Your task to perform on an android device: toggle notifications settings in the gmail app Image 0: 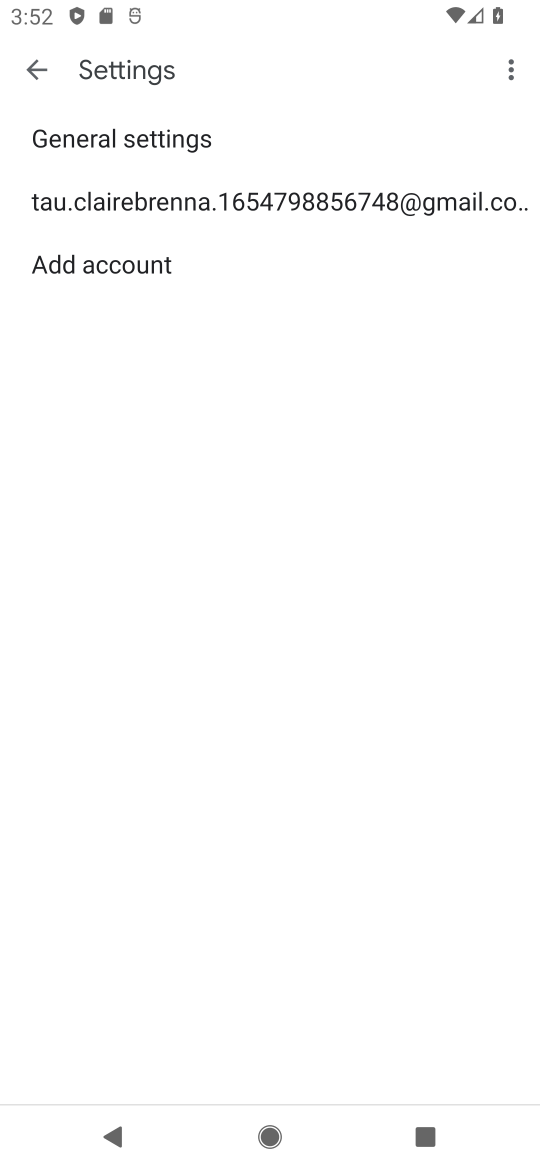
Step 0: click (510, 213)
Your task to perform on an android device: toggle notifications settings in the gmail app Image 1: 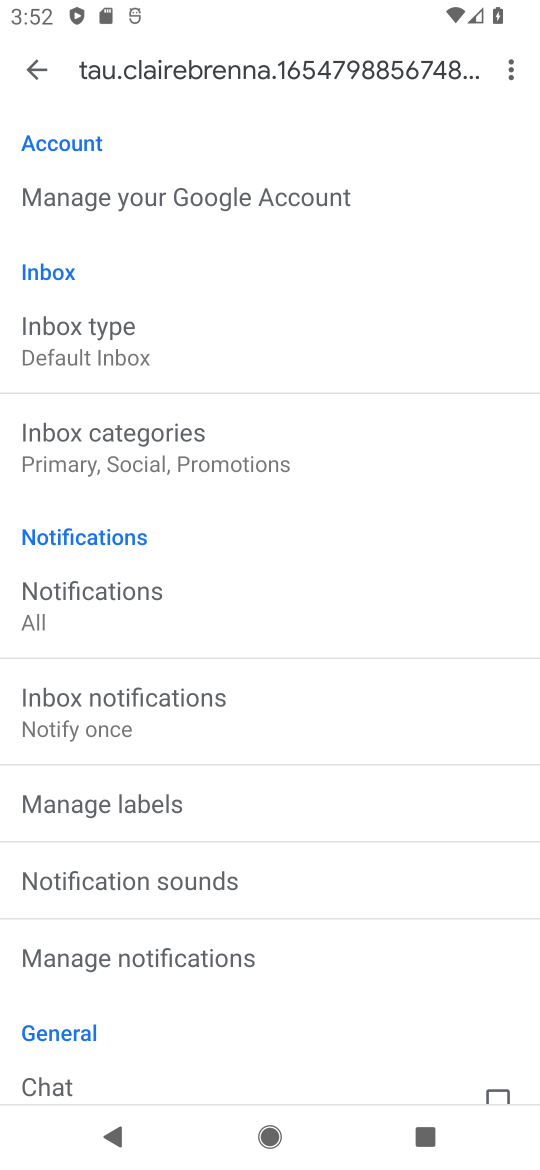
Step 1: click (128, 966)
Your task to perform on an android device: toggle notifications settings in the gmail app Image 2: 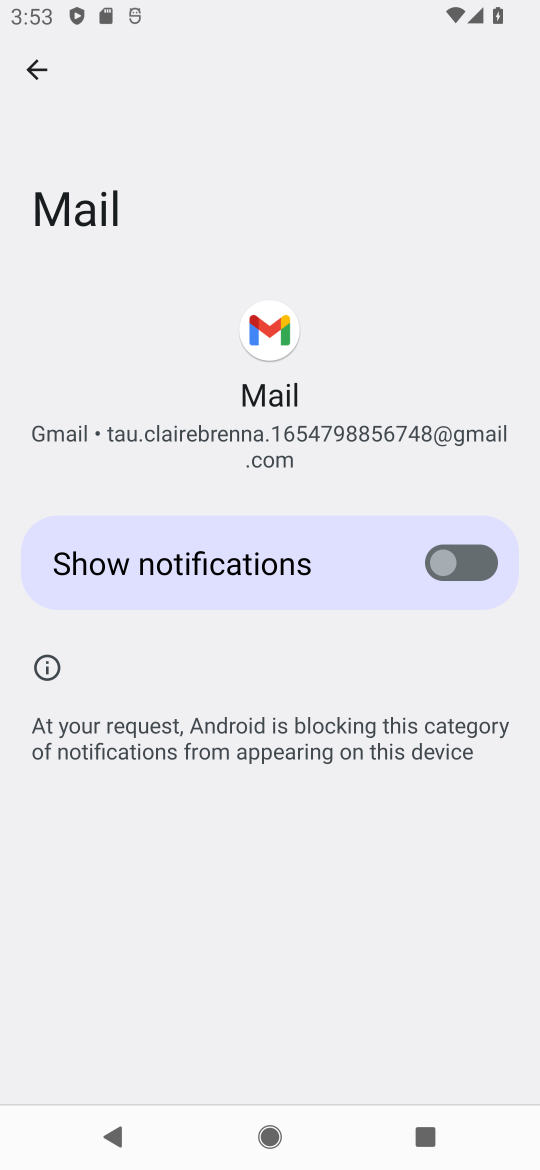
Step 2: click (430, 567)
Your task to perform on an android device: toggle notifications settings in the gmail app Image 3: 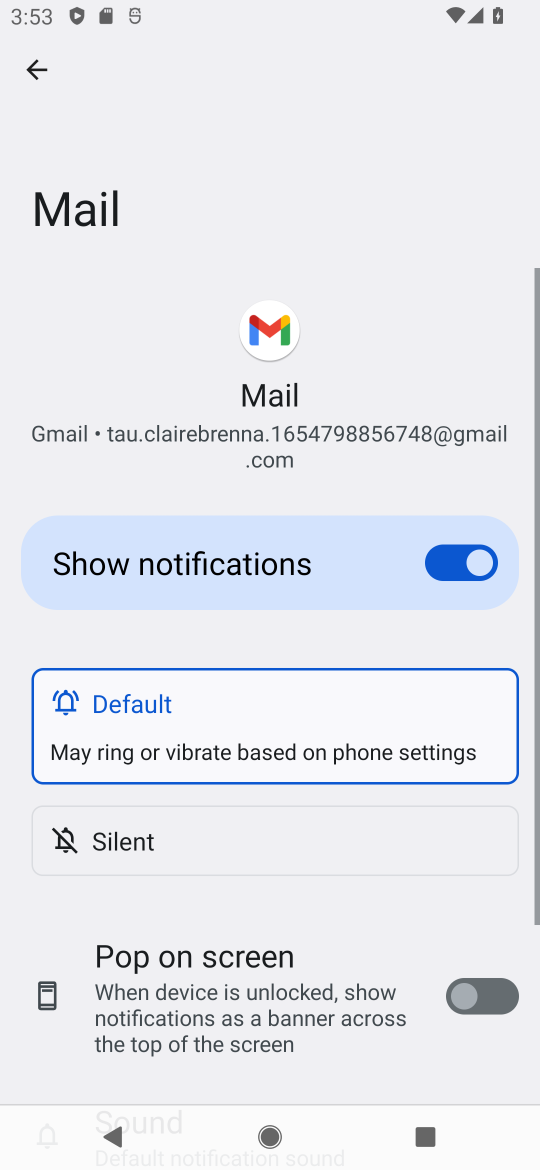
Step 3: task complete